Your task to perform on an android device: turn off picture-in-picture Image 0: 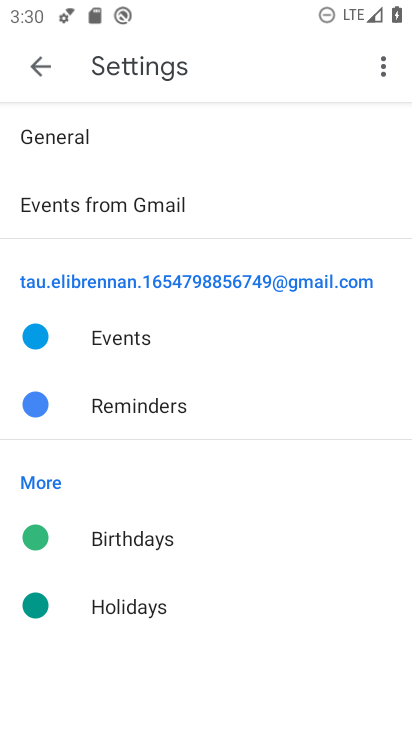
Step 0: press home button
Your task to perform on an android device: turn off picture-in-picture Image 1: 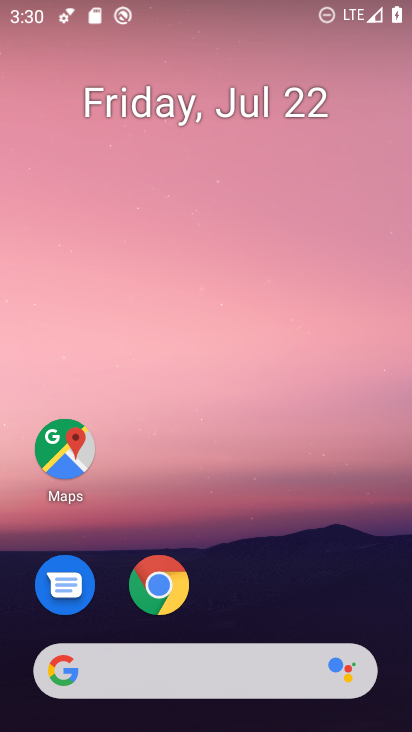
Step 1: click (157, 570)
Your task to perform on an android device: turn off picture-in-picture Image 2: 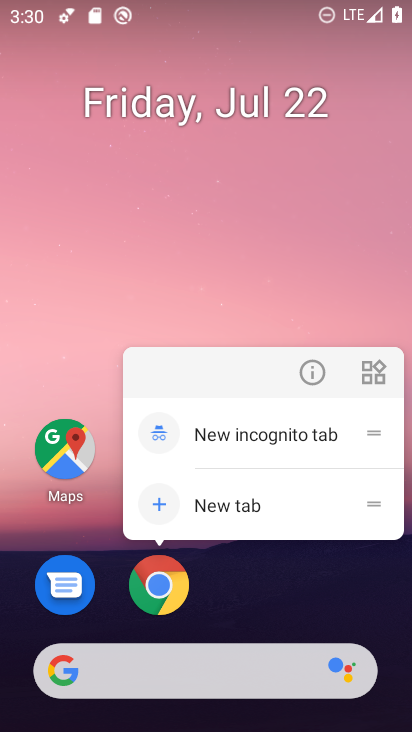
Step 2: click (311, 371)
Your task to perform on an android device: turn off picture-in-picture Image 3: 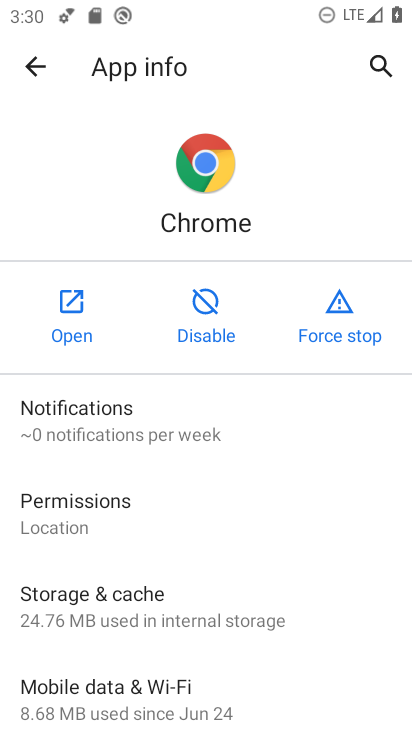
Step 3: drag from (256, 538) to (289, 342)
Your task to perform on an android device: turn off picture-in-picture Image 4: 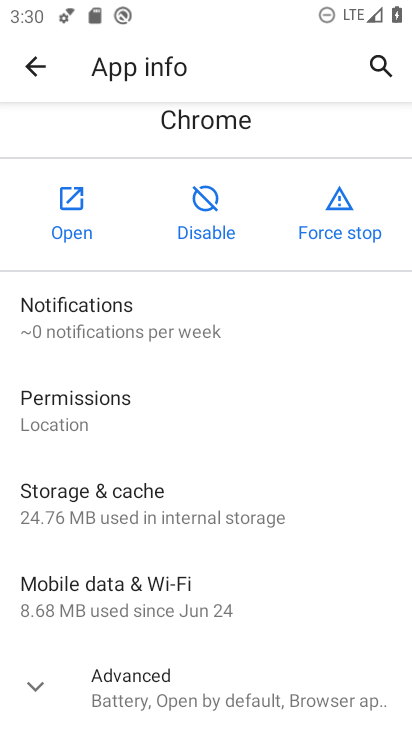
Step 4: drag from (260, 470) to (269, 324)
Your task to perform on an android device: turn off picture-in-picture Image 5: 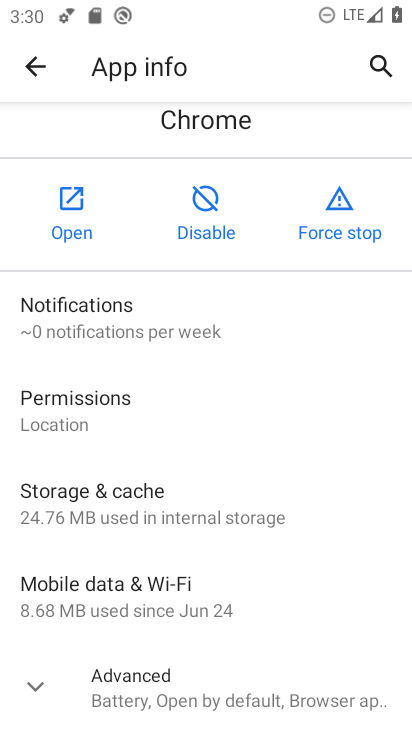
Step 5: click (31, 681)
Your task to perform on an android device: turn off picture-in-picture Image 6: 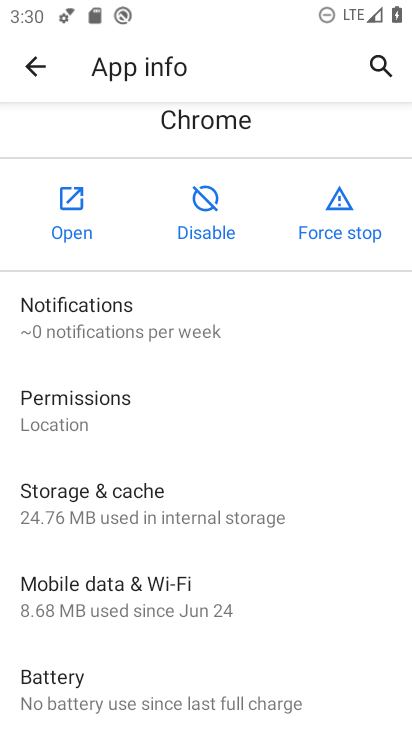
Step 6: drag from (234, 552) to (339, 110)
Your task to perform on an android device: turn off picture-in-picture Image 7: 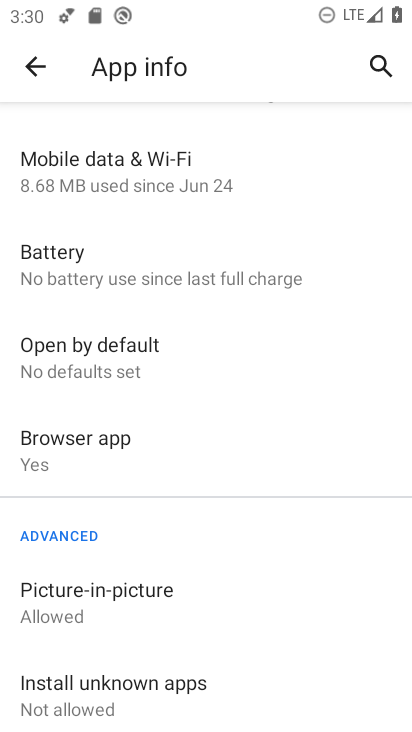
Step 7: click (151, 589)
Your task to perform on an android device: turn off picture-in-picture Image 8: 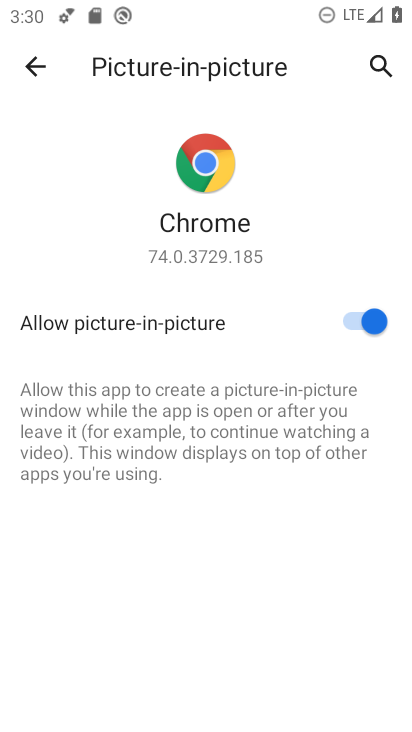
Step 8: click (375, 320)
Your task to perform on an android device: turn off picture-in-picture Image 9: 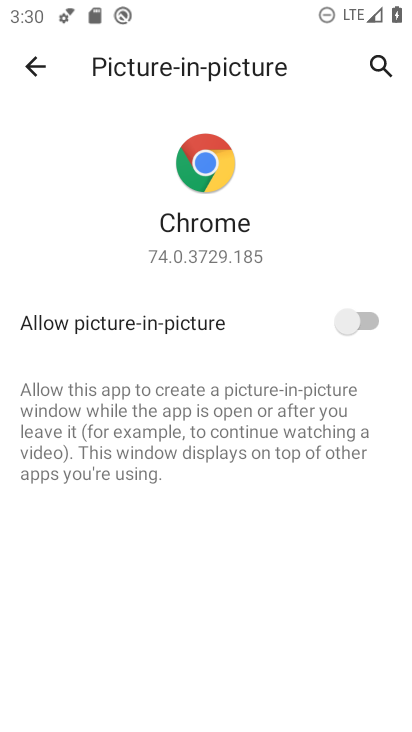
Step 9: task complete